Your task to perform on an android device: Open Youtube and go to "Your channel" Image 0: 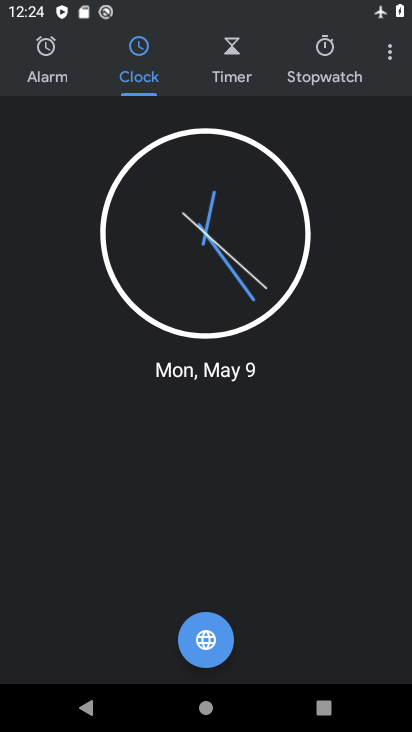
Step 0: press home button
Your task to perform on an android device: Open Youtube and go to "Your channel" Image 1: 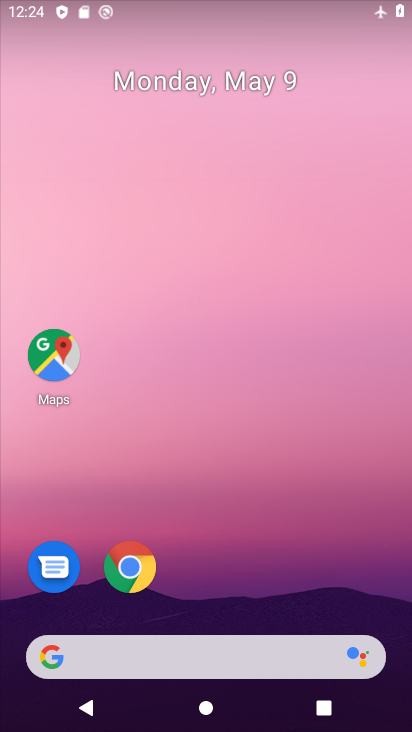
Step 1: drag from (230, 601) to (277, 26)
Your task to perform on an android device: Open Youtube and go to "Your channel" Image 2: 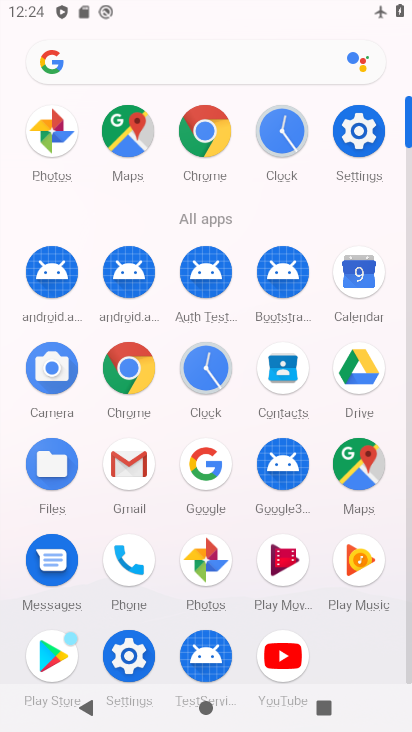
Step 2: click (286, 652)
Your task to perform on an android device: Open Youtube and go to "Your channel" Image 3: 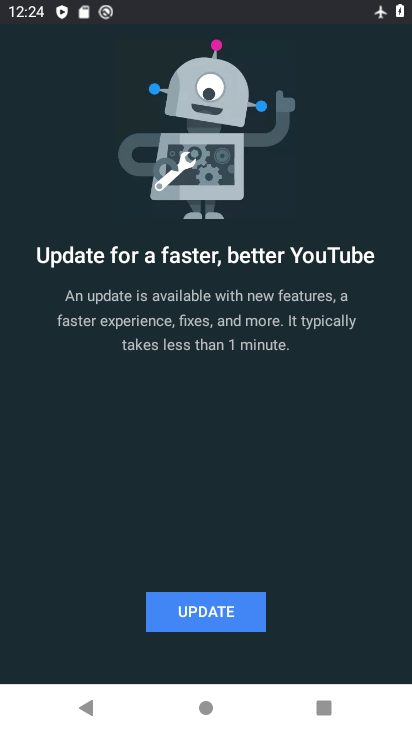
Step 3: click (216, 614)
Your task to perform on an android device: Open Youtube and go to "Your channel" Image 4: 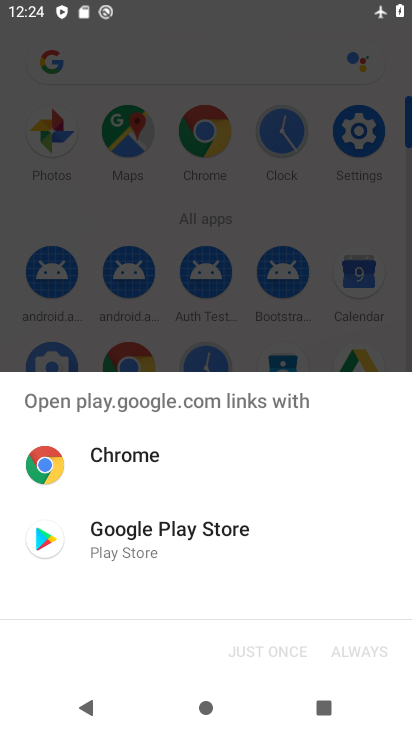
Step 4: click (155, 530)
Your task to perform on an android device: Open Youtube and go to "Your channel" Image 5: 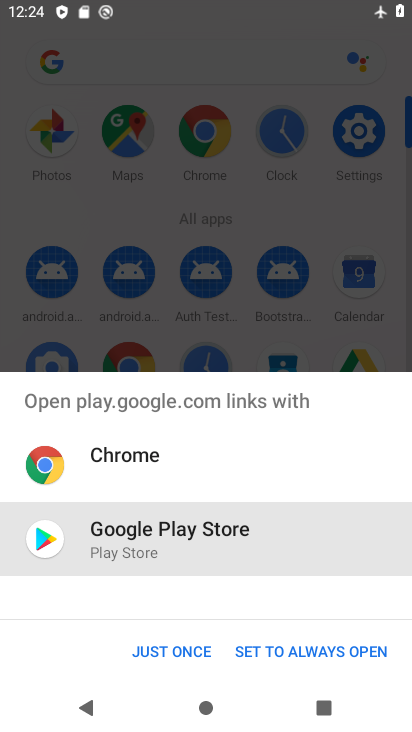
Step 5: click (194, 654)
Your task to perform on an android device: Open Youtube and go to "Your channel" Image 6: 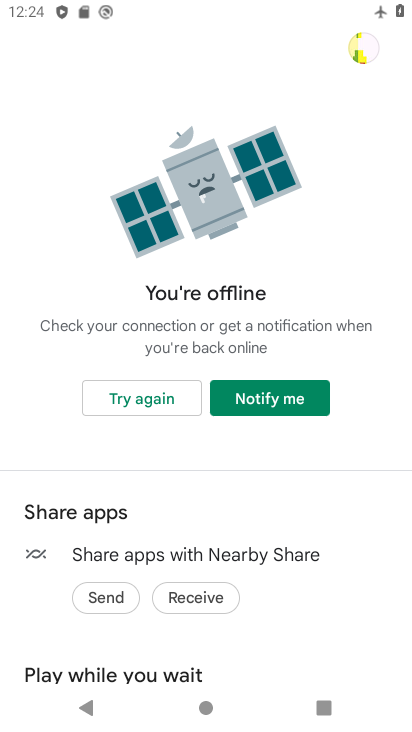
Step 6: click (177, 398)
Your task to perform on an android device: Open Youtube and go to "Your channel" Image 7: 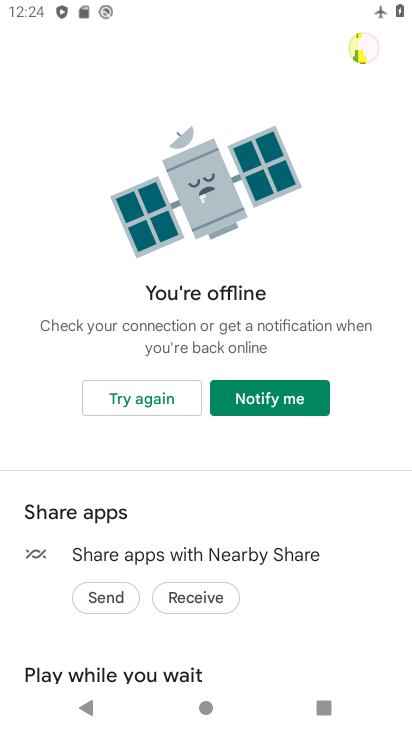
Step 7: task complete